Your task to perform on an android device: turn off wifi Image 0: 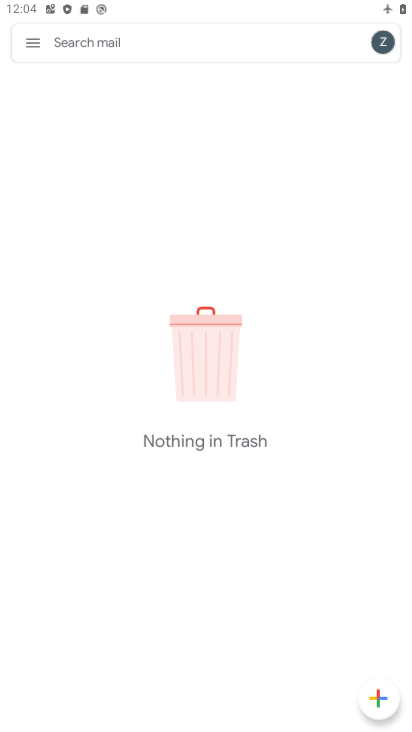
Step 0: press home button
Your task to perform on an android device: turn off wifi Image 1: 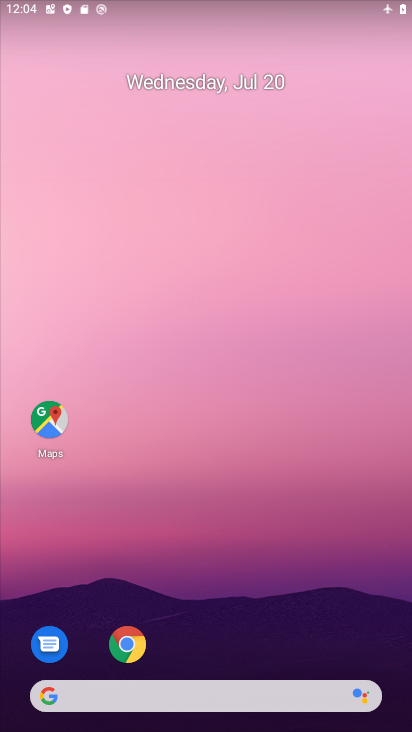
Step 1: task complete